Your task to perform on an android device: Open the phone app and click the voicemail tab. Image 0: 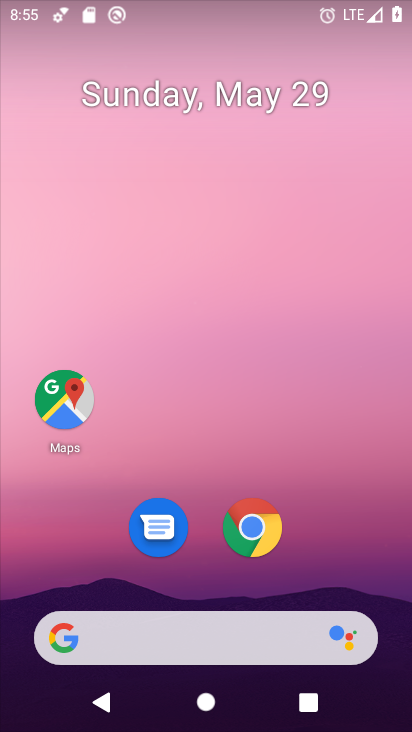
Step 0: drag from (200, 574) to (234, 6)
Your task to perform on an android device: Open the phone app and click the voicemail tab. Image 1: 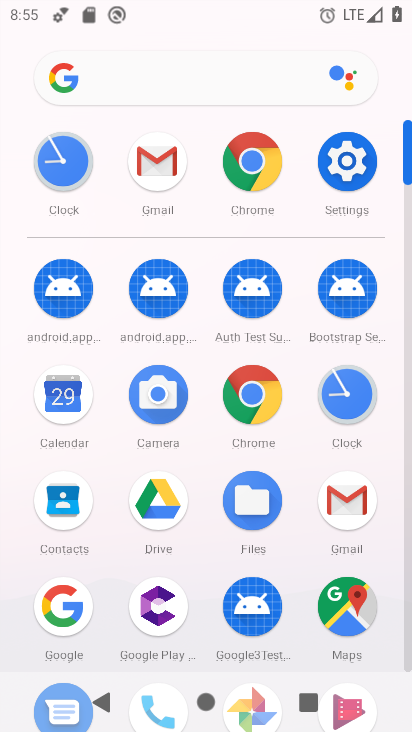
Step 1: drag from (195, 598) to (218, 141)
Your task to perform on an android device: Open the phone app and click the voicemail tab. Image 2: 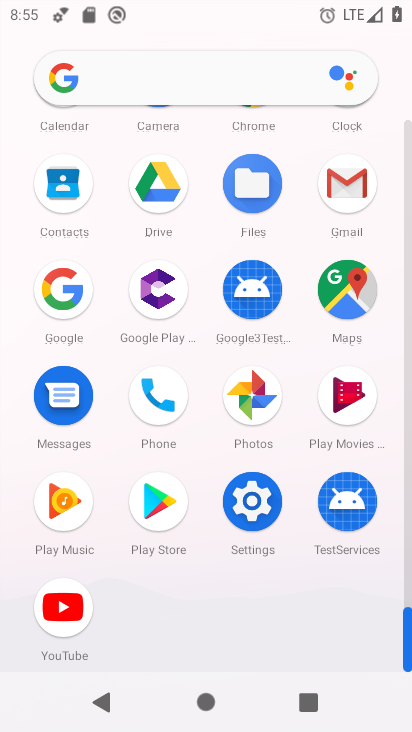
Step 2: click (155, 382)
Your task to perform on an android device: Open the phone app and click the voicemail tab. Image 3: 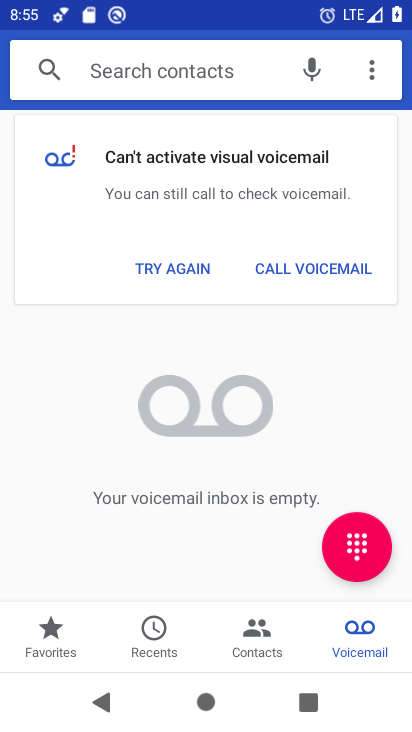
Step 3: task complete